Your task to perform on an android device: turn off location Image 0: 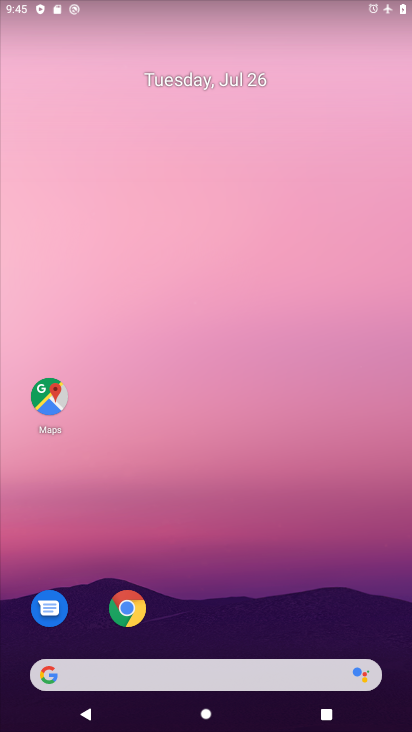
Step 0: drag from (234, 720) to (230, 79)
Your task to perform on an android device: turn off location Image 1: 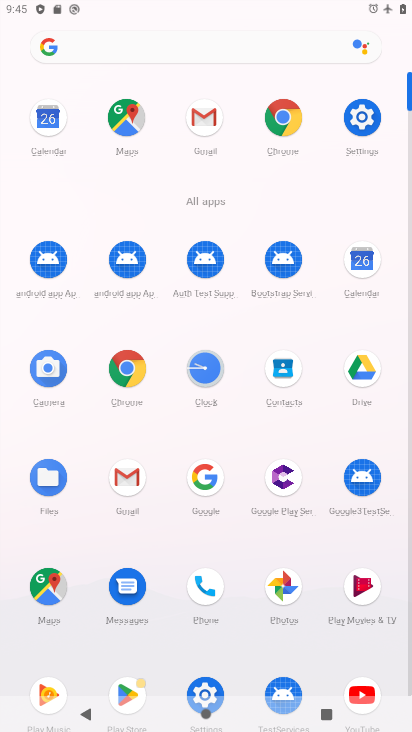
Step 1: click (369, 115)
Your task to perform on an android device: turn off location Image 2: 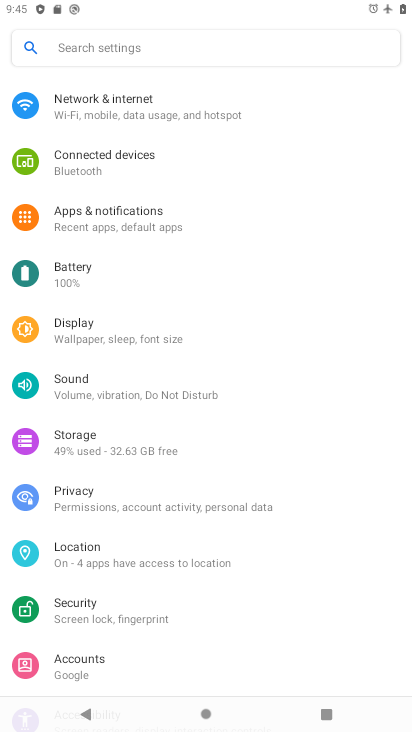
Step 2: click (77, 555)
Your task to perform on an android device: turn off location Image 3: 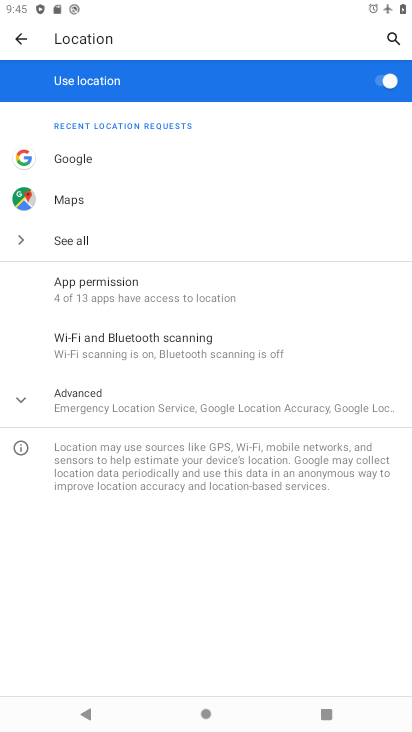
Step 3: click (380, 80)
Your task to perform on an android device: turn off location Image 4: 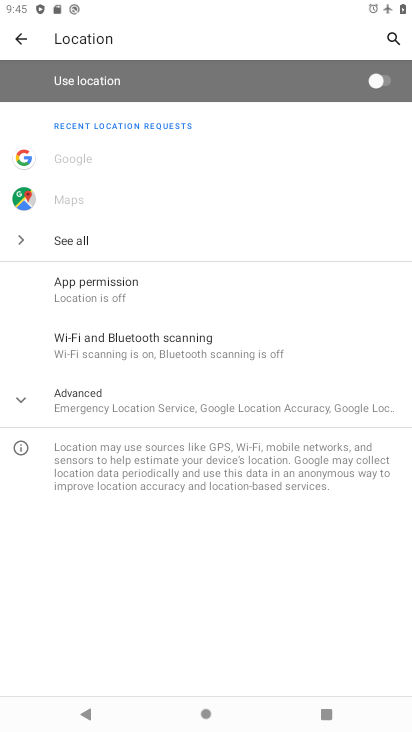
Step 4: task complete